Your task to perform on an android device: turn off javascript in the chrome app Image 0: 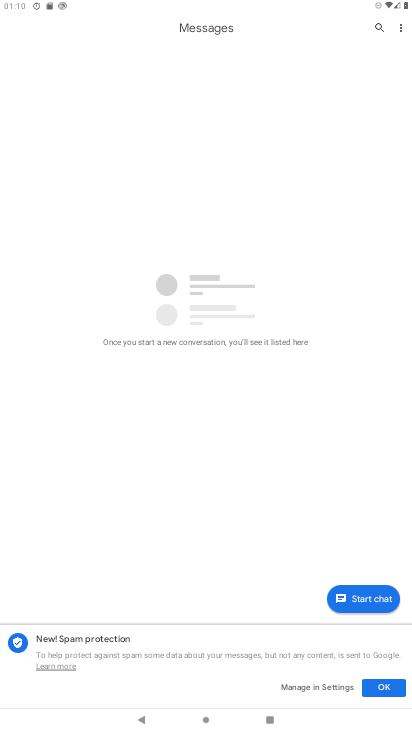
Step 0: press home button
Your task to perform on an android device: turn off javascript in the chrome app Image 1: 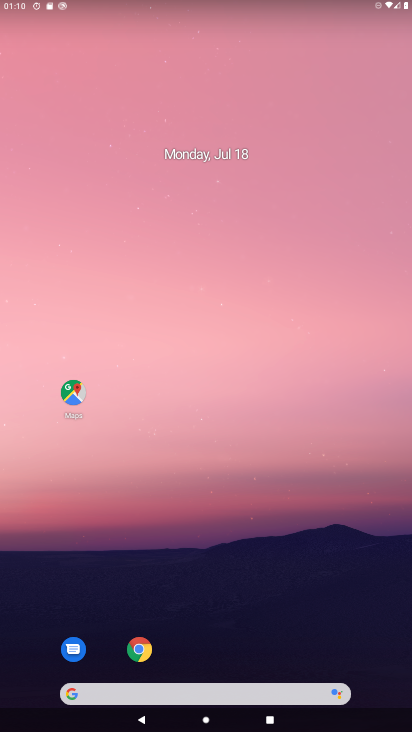
Step 1: click (149, 644)
Your task to perform on an android device: turn off javascript in the chrome app Image 2: 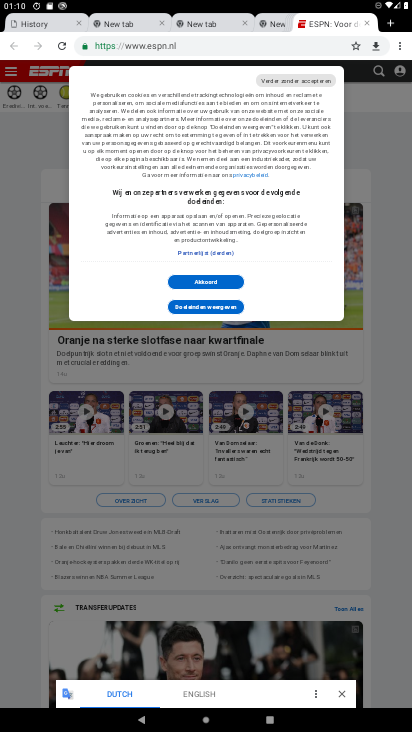
Step 2: click (402, 43)
Your task to perform on an android device: turn off javascript in the chrome app Image 3: 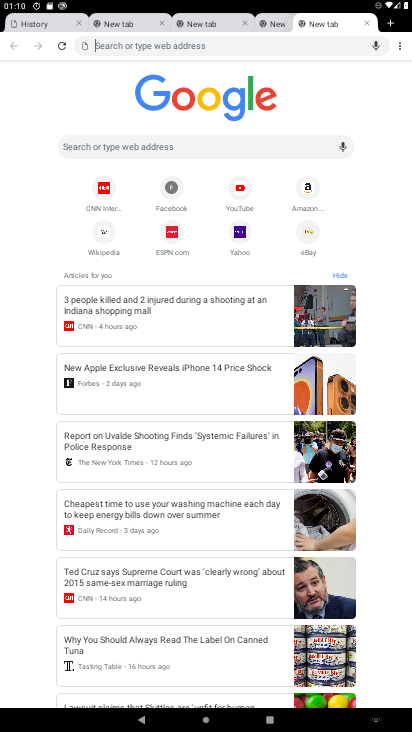
Step 3: click (402, 47)
Your task to perform on an android device: turn off javascript in the chrome app Image 4: 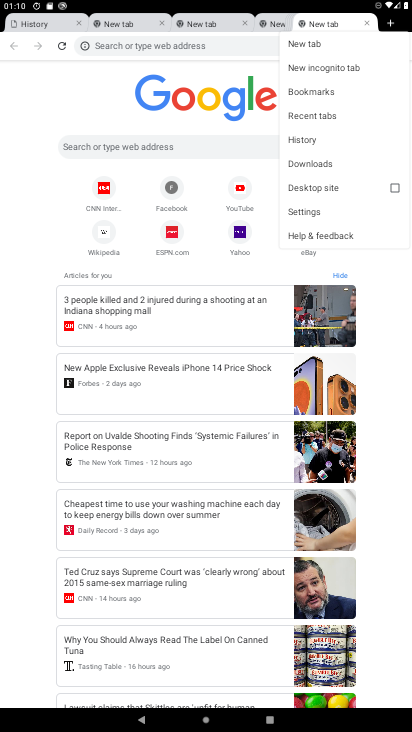
Step 4: click (306, 209)
Your task to perform on an android device: turn off javascript in the chrome app Image 5: 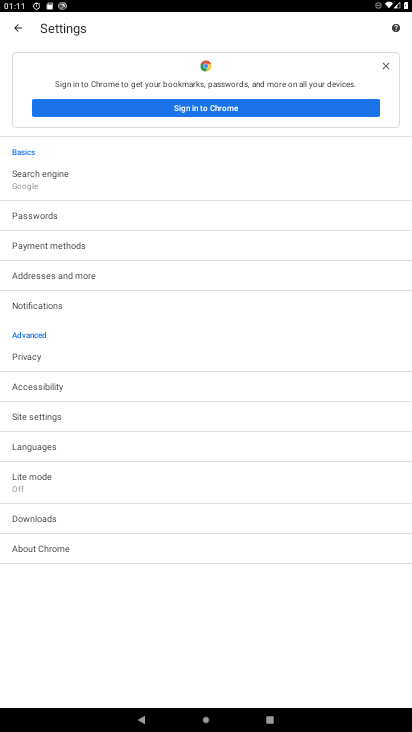
Step 5: click (36, 420)
Your task to perform on an android device: turn off javascript in the chrome app Image 6: 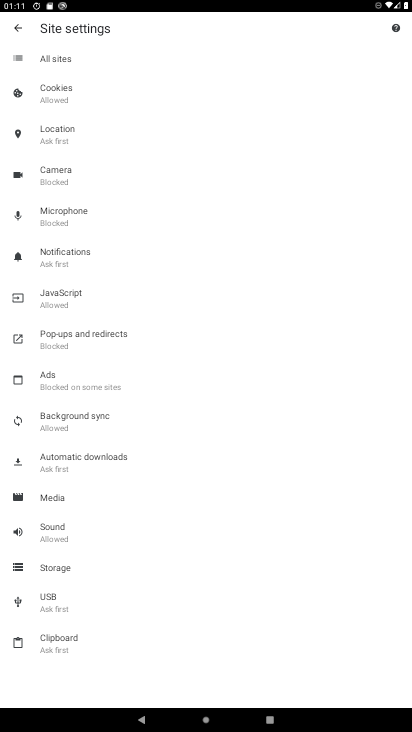
Step 6: click (66, 299)
Your task to perform on an android device: turn off javascript in the chrome app Image 7: 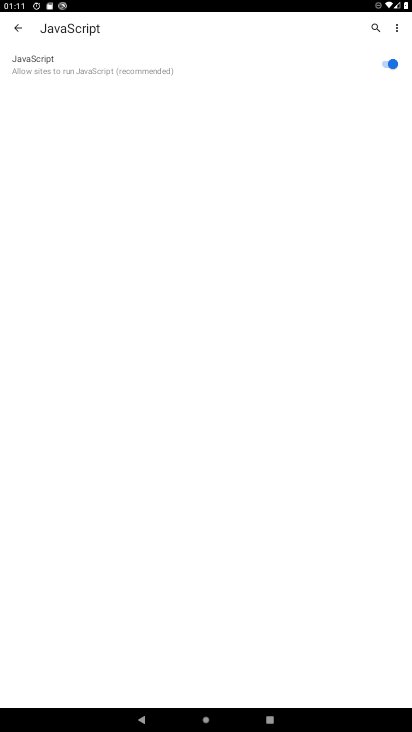
Step 7: task complete